Your task to perform on an android device: Go to location settings Image 0: 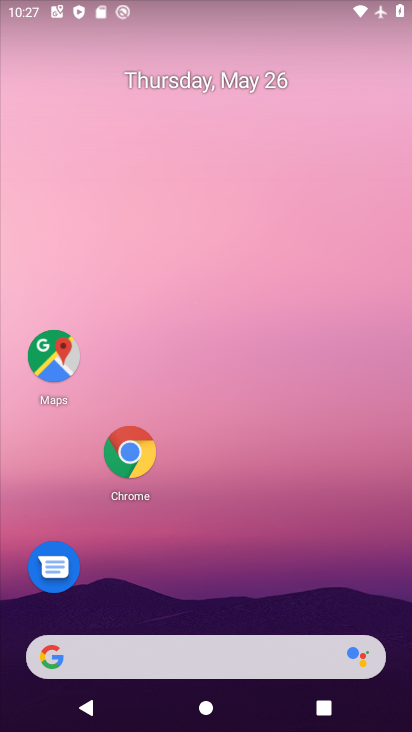
Step 0: drag from (154, 664) to (297, 133)
Your task to perform on an android device: Go to location settings Image 1: 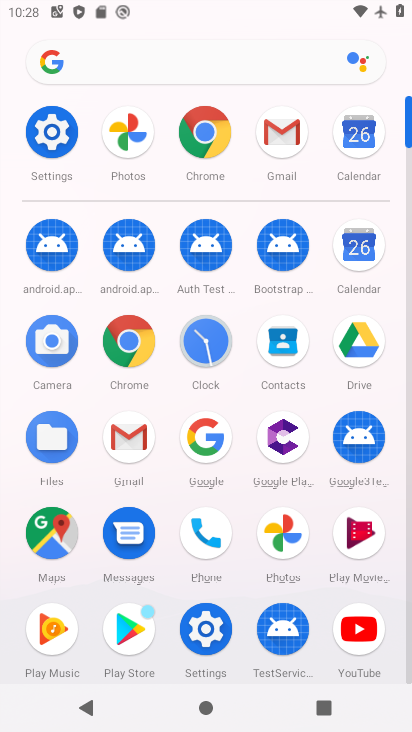
Step 1: click (55, 132)
Your task to perform on an android device: Go to location settings Image 2: 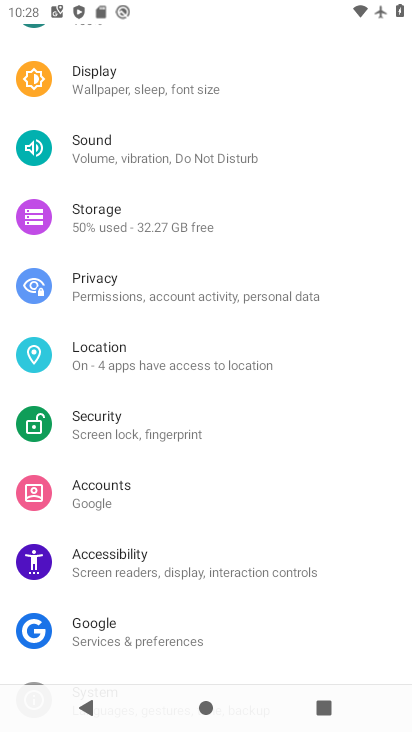
Step 2: click (129, 360)
Your task to perform on an android device: Go to location settings Image 3: 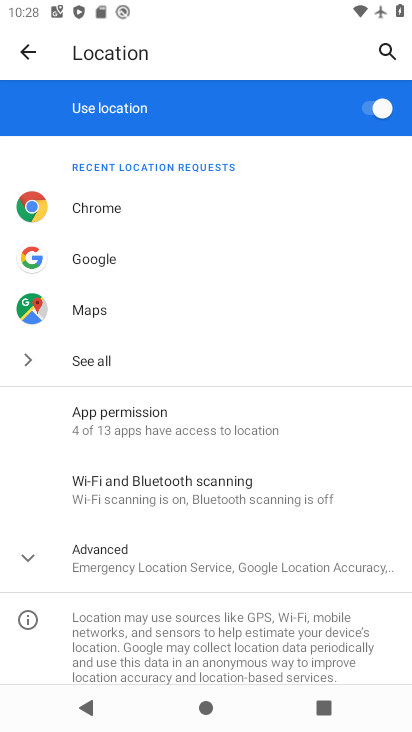
Step 3: task complete